Your task to perform on an android device: How big is a dinosaur? Image 0: 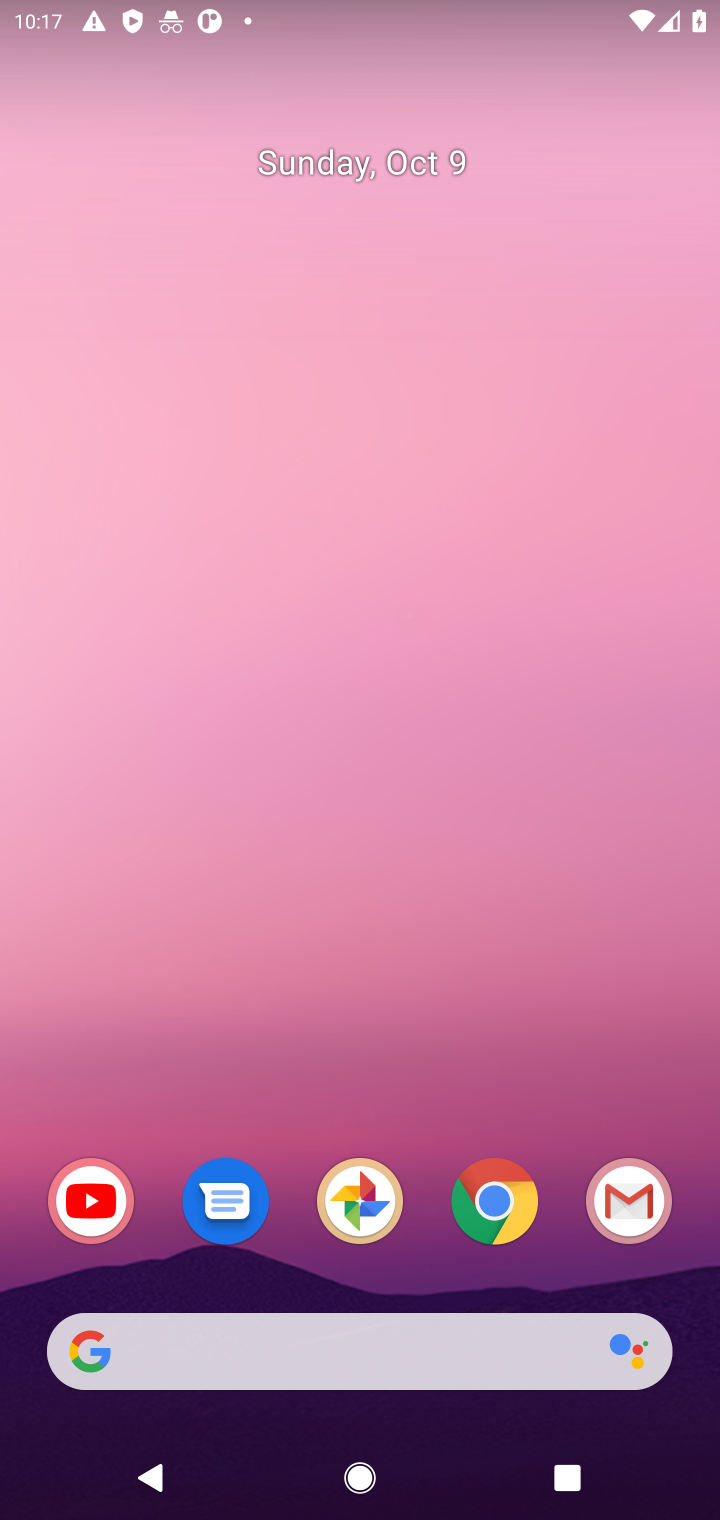
Step 0: click (514, 1215)
Your task to perform on an android device: How big is a dinosaur? Image 1: 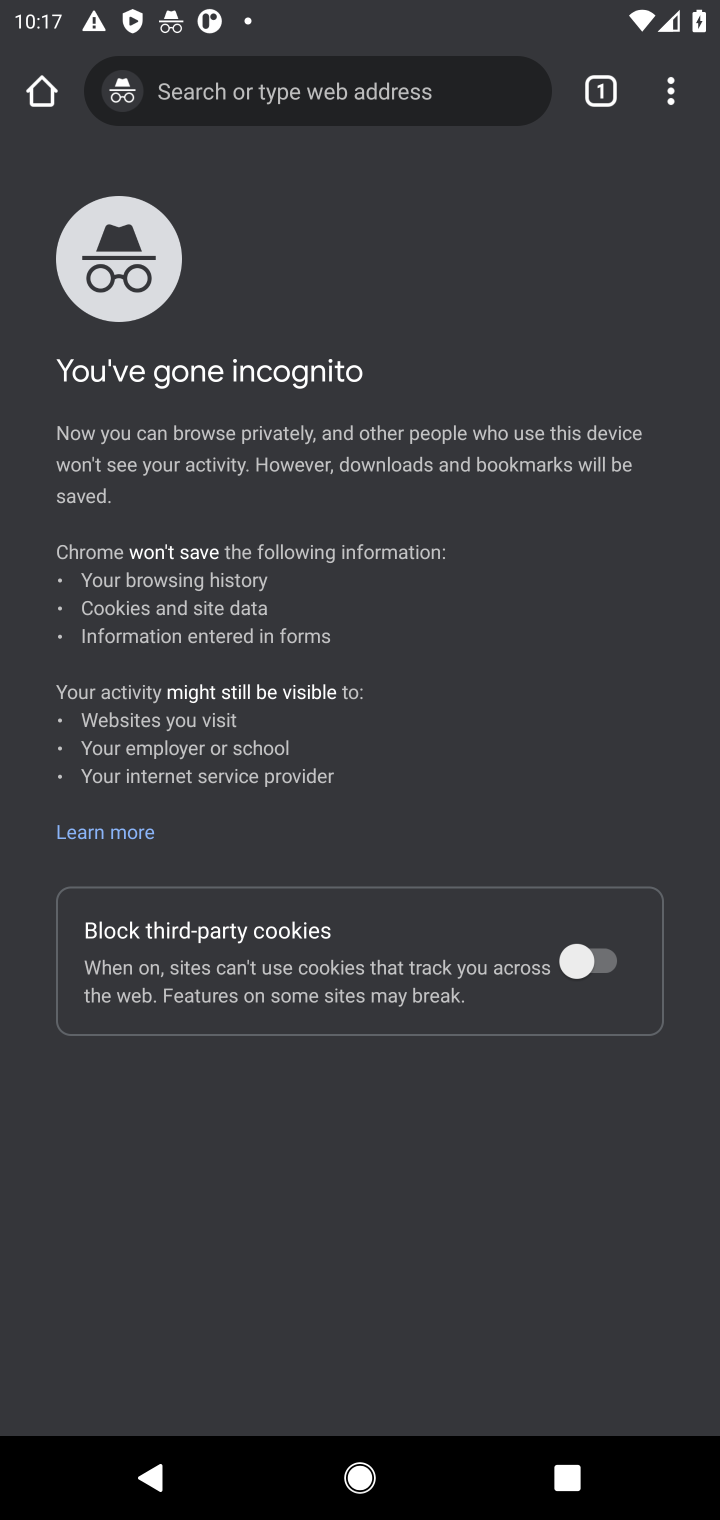
Step 1: click (360, 93)
Your task to perform on an android device: How big is a dinosaur? Image 2: 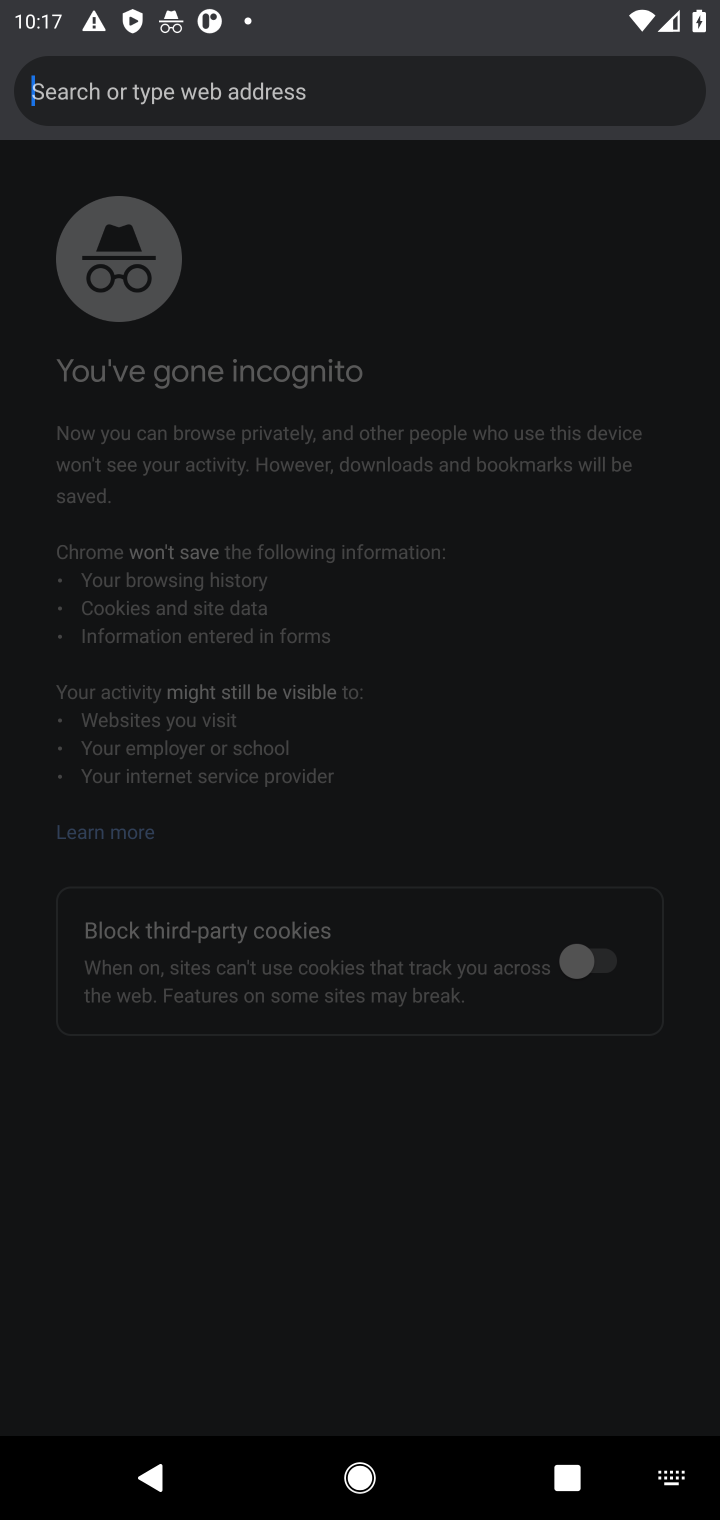
Step 2: type "How big is a dinosaur?"
Your task to perform on an android device: How big is a dinosaur? Image 3: 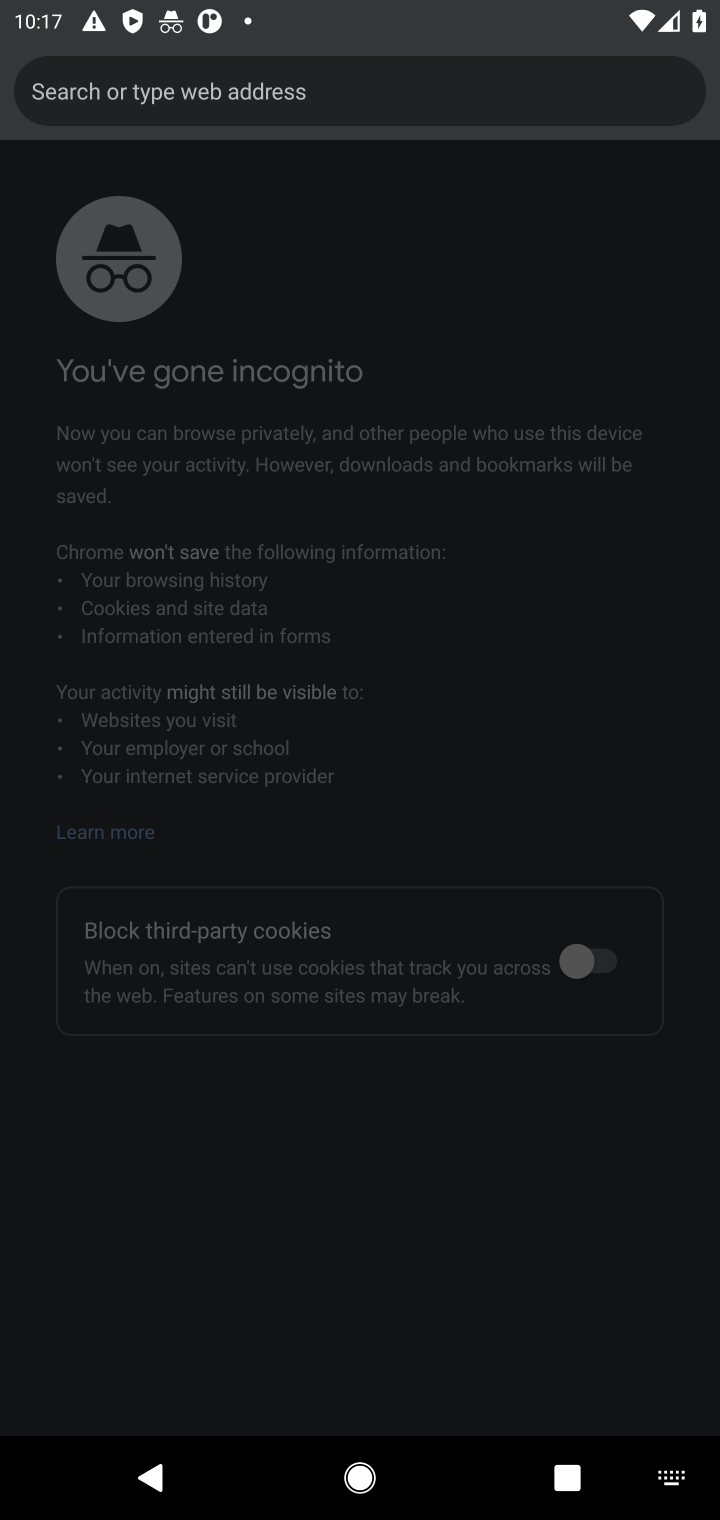
Step 3: click (513, 95)
Your task to perform on an android device: How big is a dinosaur? Image 4: 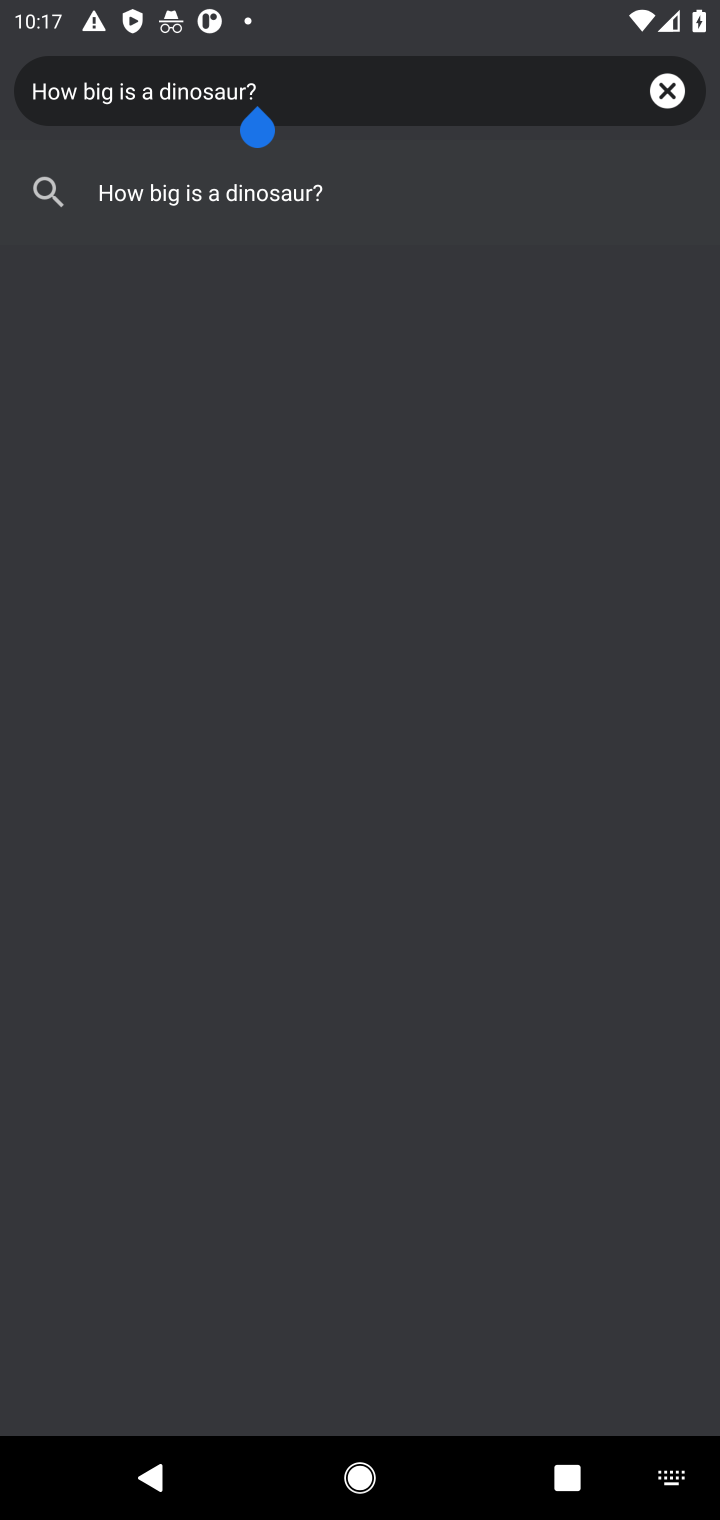
Step 4: click (279, 201)
Your task to perform on an android device: How big is a dinosaur? Image 5: 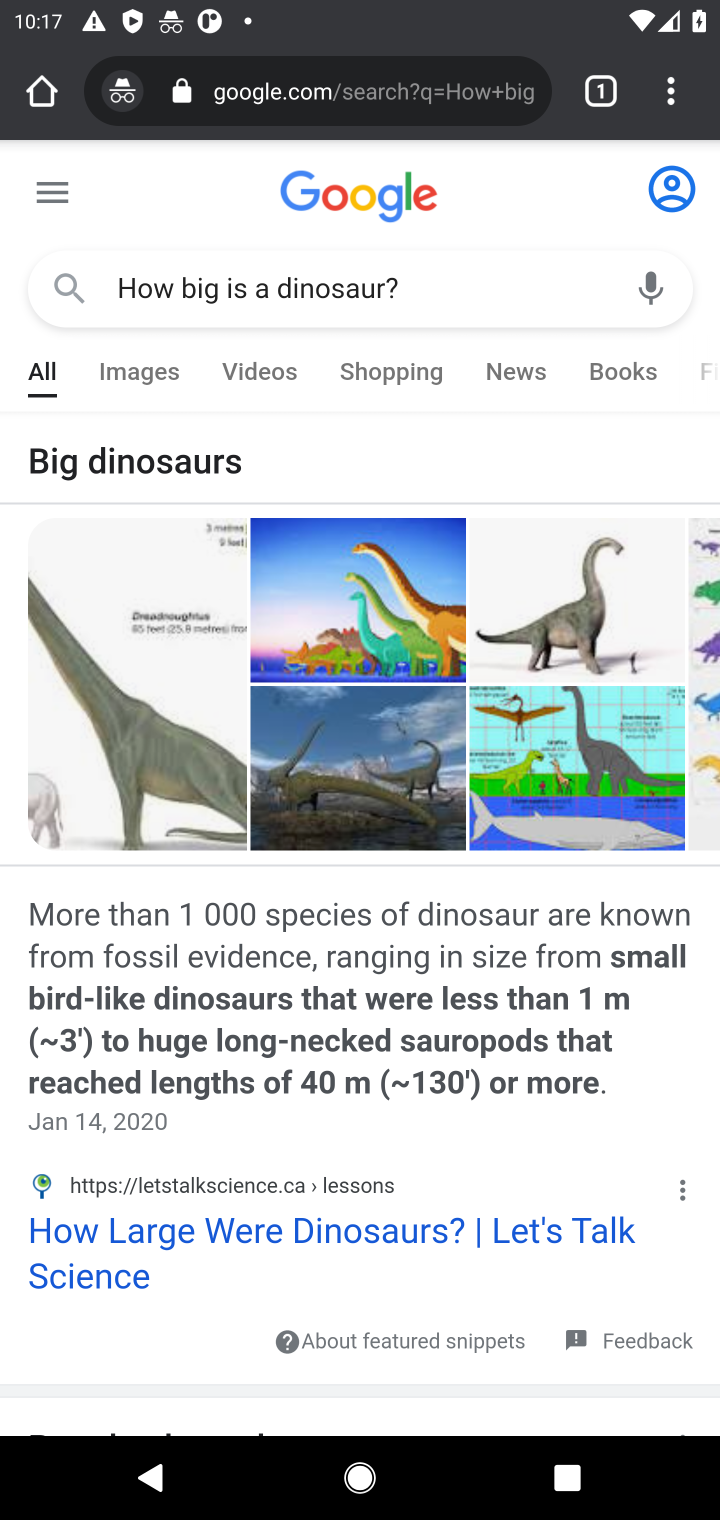
Step 5: task complete